Your task to perform on an android device: check google app version Image 0: 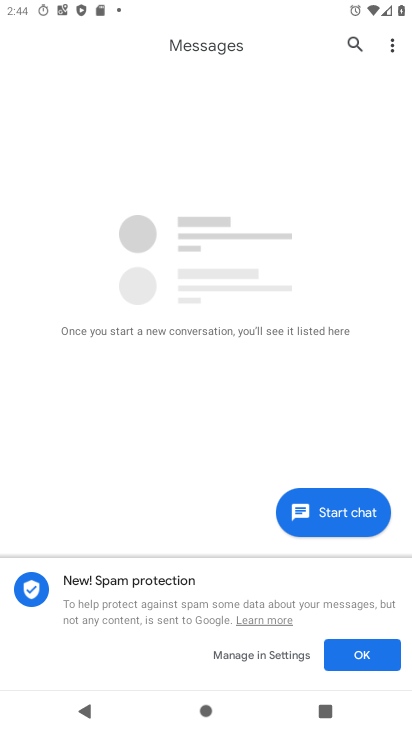
Step 0: press home button
Your task to perform on an android device: check google app version Image 1: 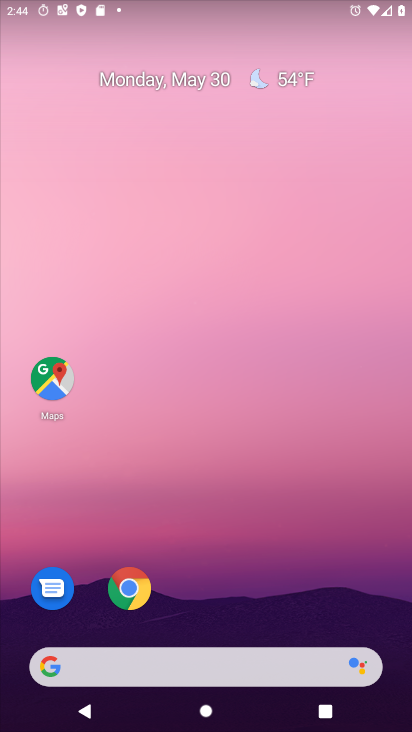
Step 1: drag from (232, 596) to (255, 90)
Your task to perform on an android device: check google app version Image 2: 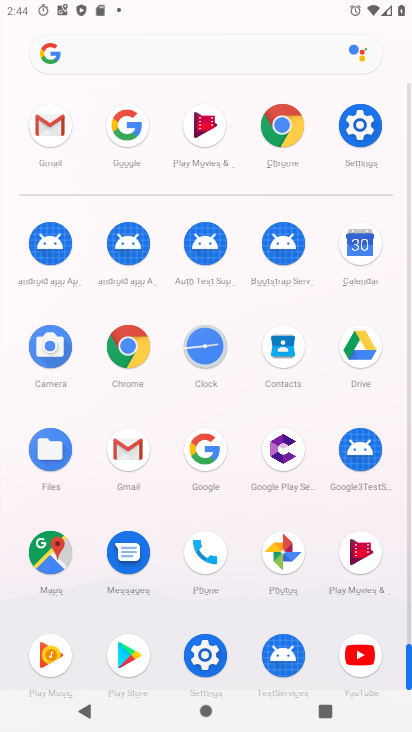
Step 2: click (209, 452)
Your task to perform on an android device: check google app version Image 3: 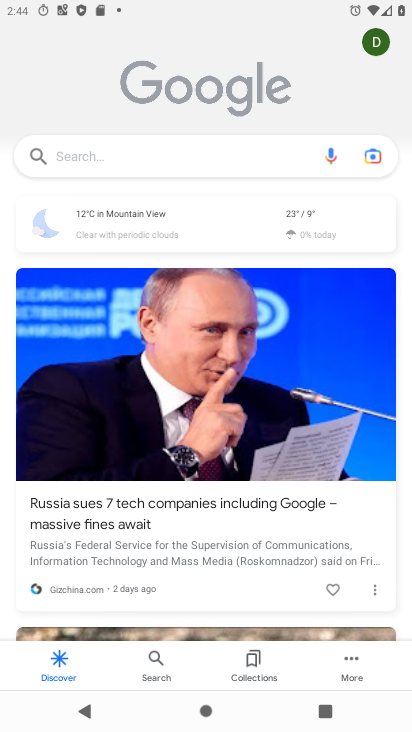
Step 3: click (359, 671)
Your task to perform on an android device: check google app version Image 4: 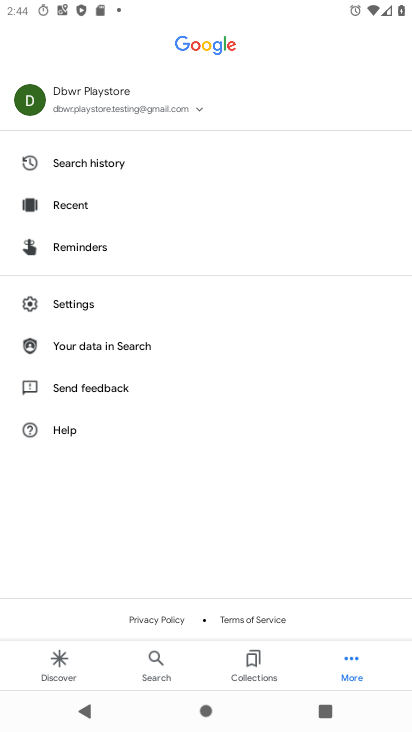
Step 4: click (77, 316)
Your task to perform on an android device: check google app version Image 5: 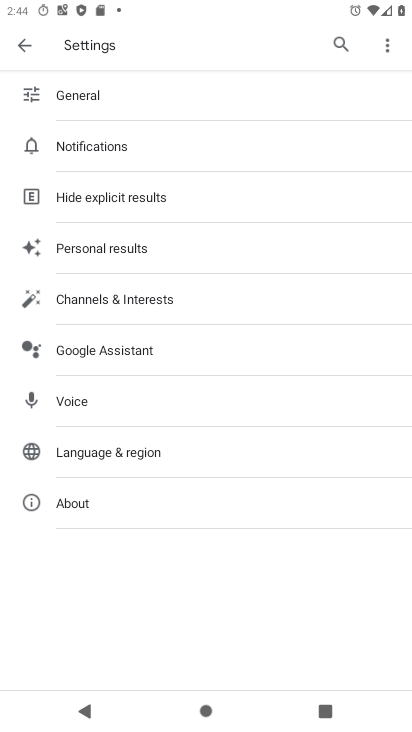
Step 5: click (101, 504)
Your task to perform on an android device: check google app version Image 6: 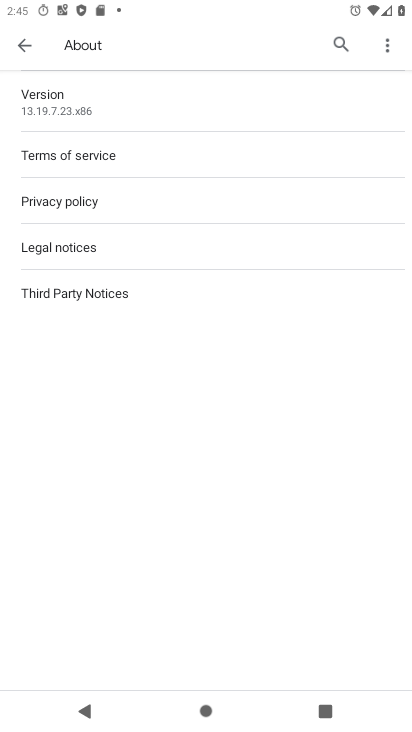
Step 6: task complete